Your task to perform on an android device: open sync settings in chrome Image 0: 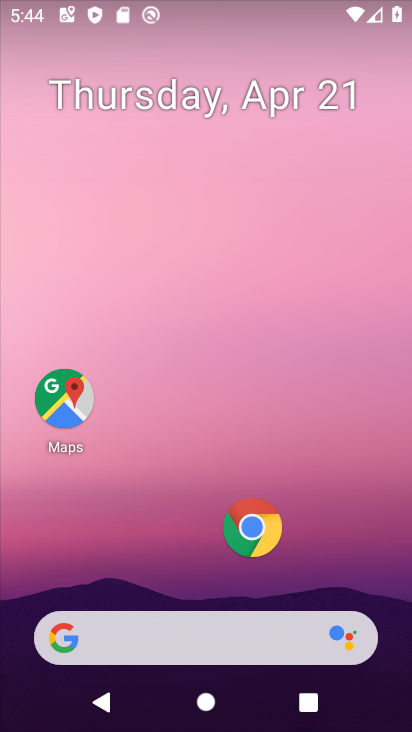
Step 0: click (248, 522)
Your task to perform on an android device: open sync settings in chrome Image 1: 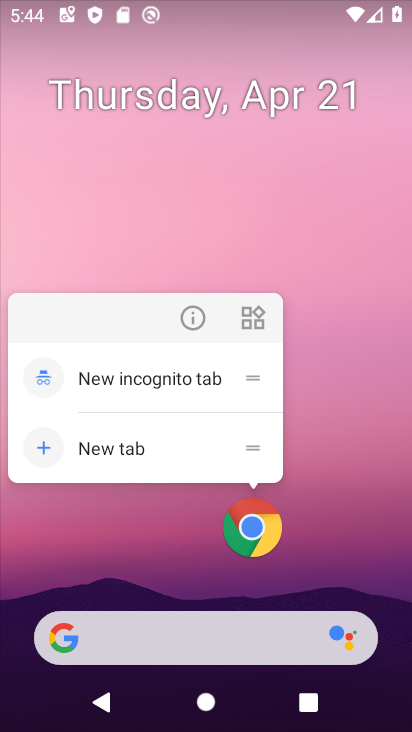
Step 1: click (254, 519)
Your task to perform on an android device: open sync settings in chrome Image 2: 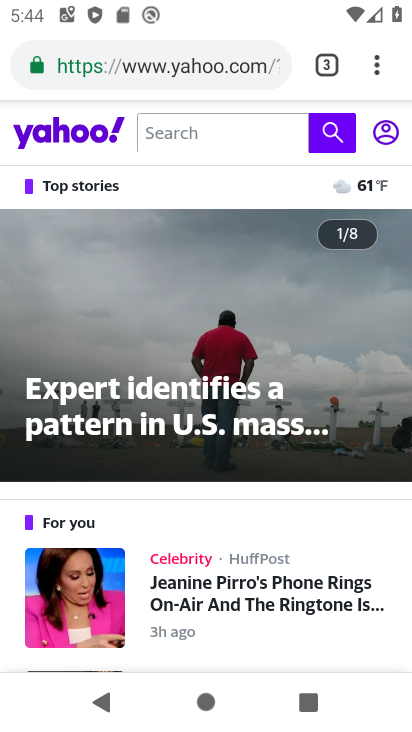
Step 2: click (376, 62)
Your task to perform on an android device: open sync settings in chrome Image 3: 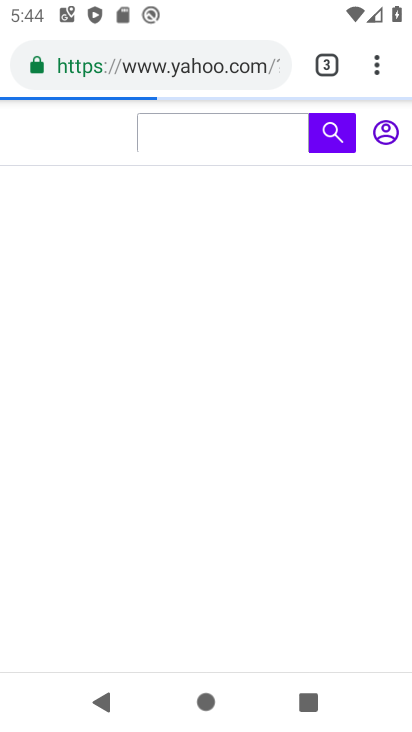
Step 3: drag from (377, 60) to (182, 572)
Your task to perform on an android device: open sync settings in chrome Image 4: 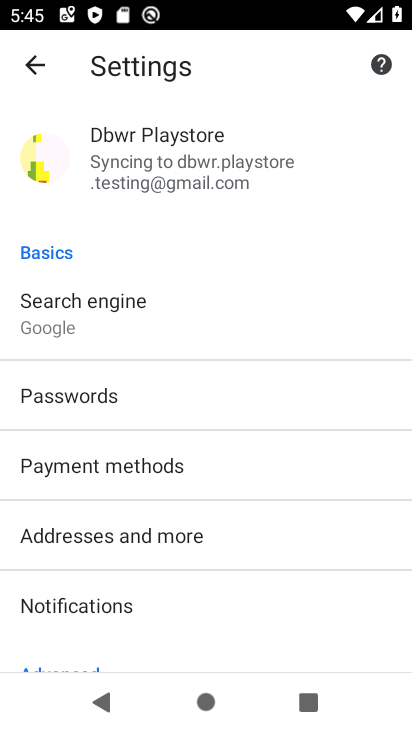
Step 4: click (151, 168)
Your task to perform on an android device: open sync settings in chrome Image 5: 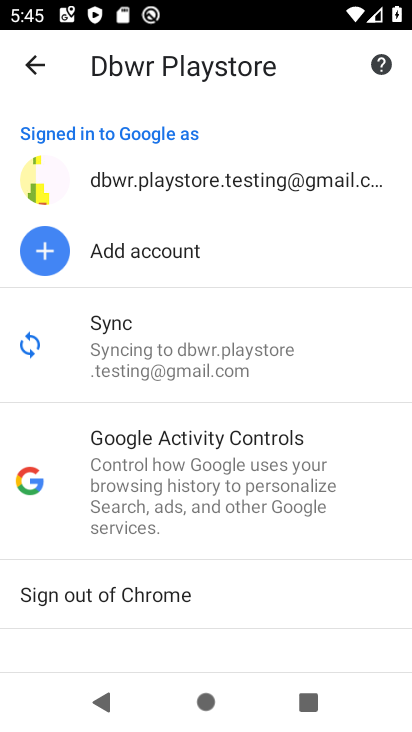
Step 5: task complete